Your task to perform on an android device: Open network settings Image 0: 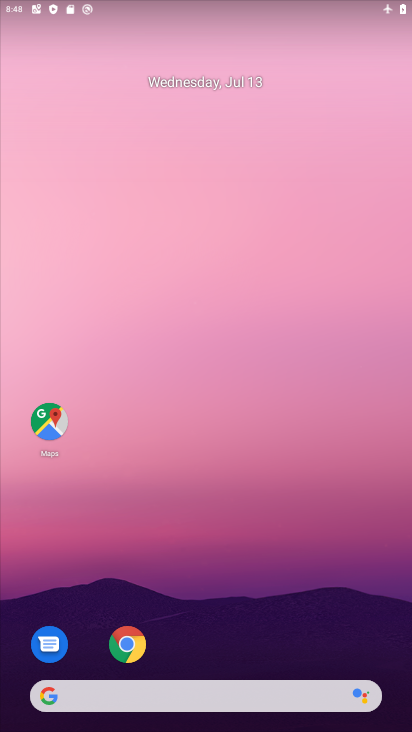
Step 0: drag from (203, 692) to (221, 166)
Your task to perform on an android device: Open network settings Image 1: 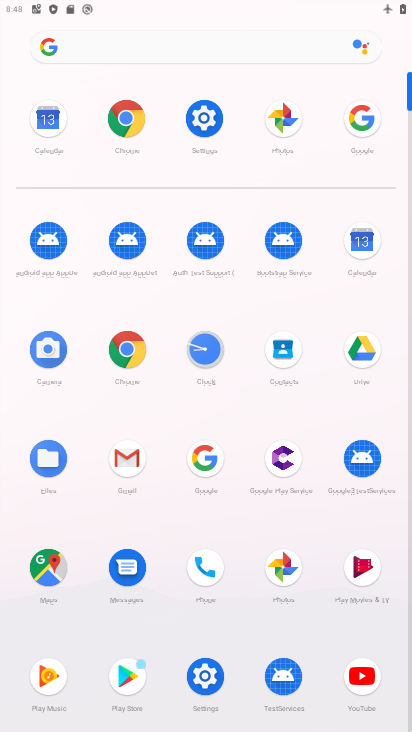
Step 1: click (203, 122)
Your task to perform on an android device: Open network settings Image 2: 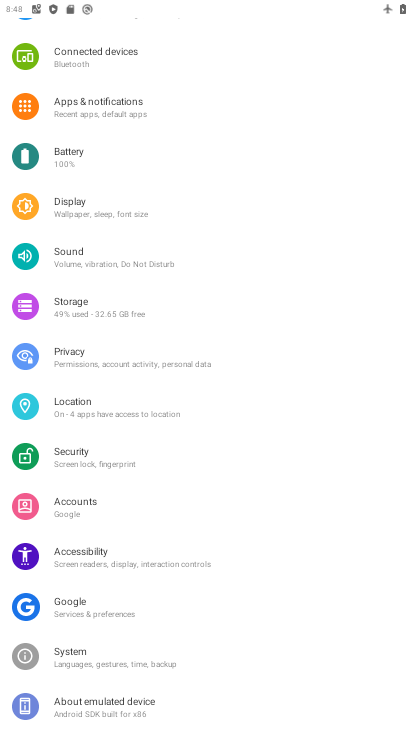
Step 2: drag from (93, 99) to (121, 480)
Your task to perform on an android device: Open network settings Image 3: 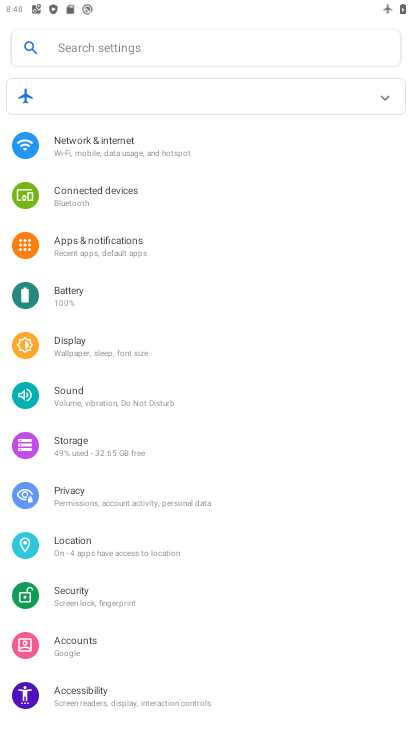
Step 3: click (84, 152)
Your task to perform on an android device: Open network settings Image 4: 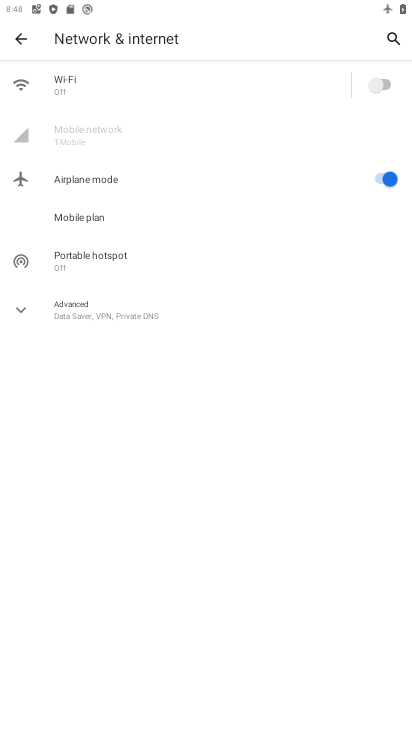
Step 4: task complete